Your task to perform on an android device: check the backup settings in the google photos Image 0: 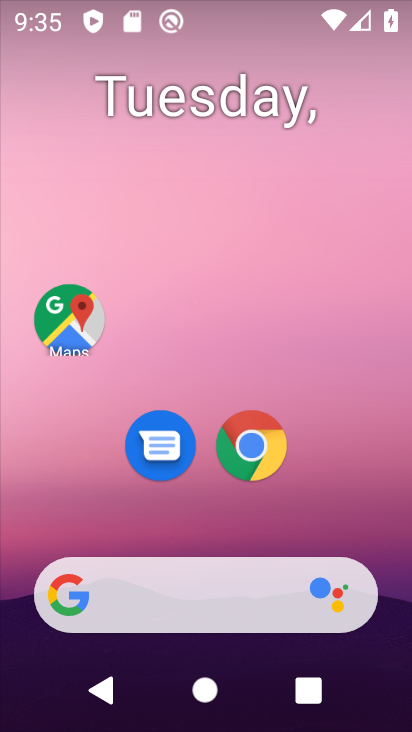
Step 0: drag from (210, 527) to (218, 11)
Your task to perform on an android device: check the backup settings in the google photos Image 1: 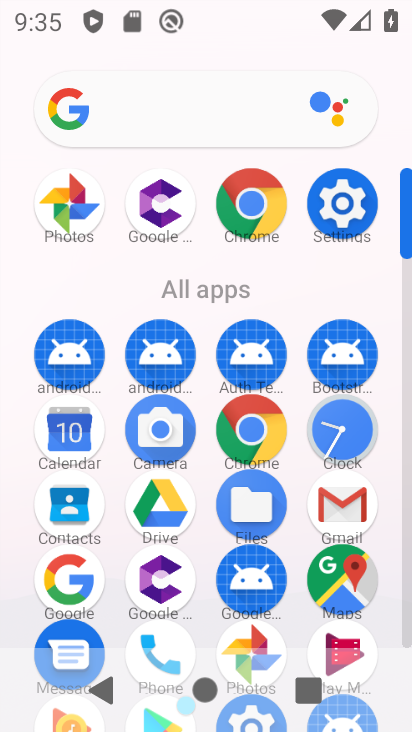
Step 1: click (65, 198)
Your task to perform on an android device: check the backup settings in the google photos Image 2: 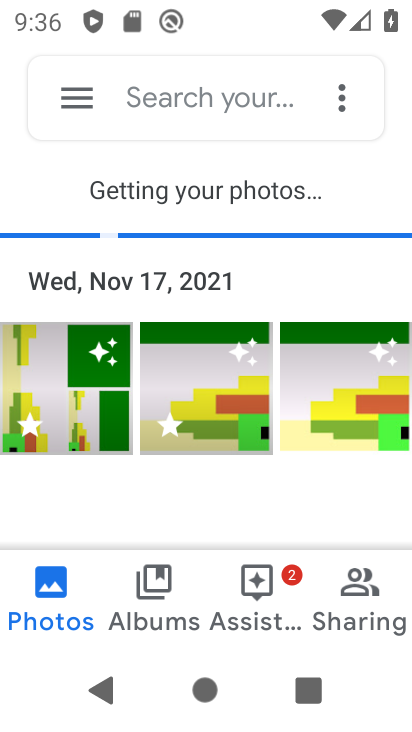
Step 2: click (92, 92)
Your task to perform on an android device: check the backup settings in the google photos Image 3: 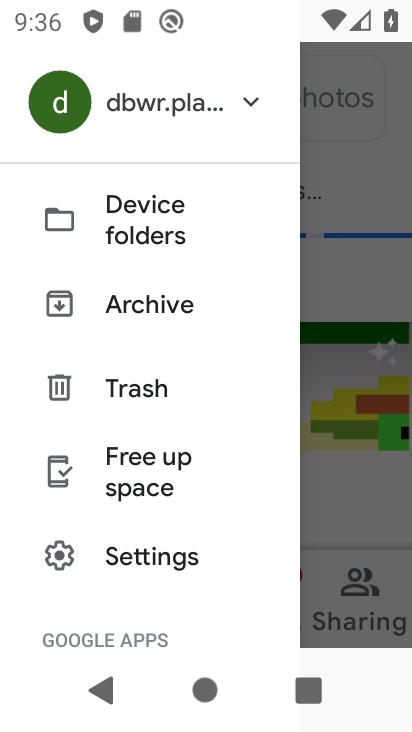
Step 3: click (172, 564)
Your task to perform on an android device: check the backup settings in the google photos Image 4: 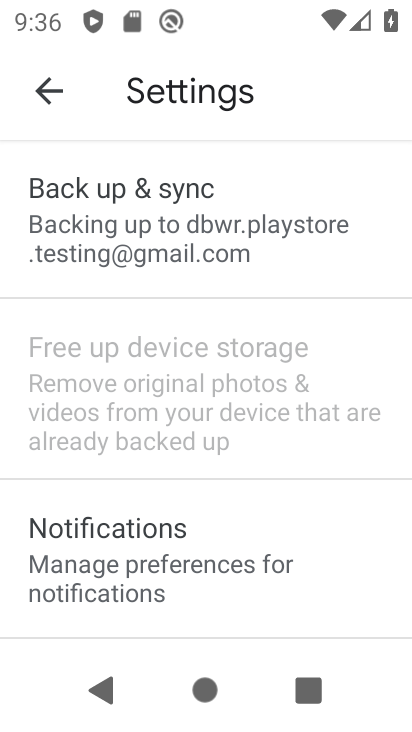
Step 4: click (258, 244)
Your task to perform on an android device: check the backup settings in the google photos Image 5: 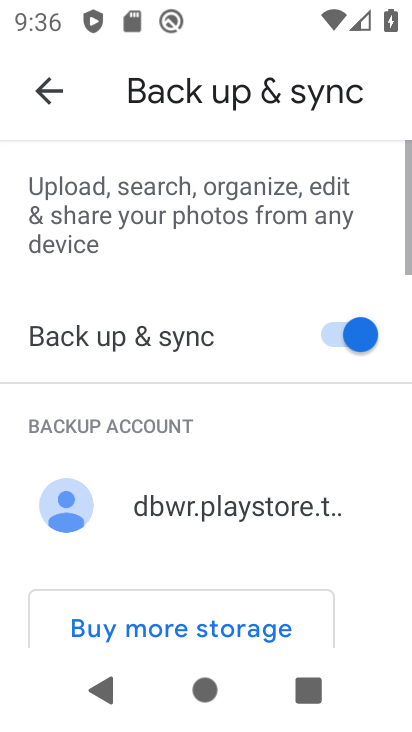
Step 5: task complete